Your task to perform on an android device: Is it going to rain tomorrow? Image 0: 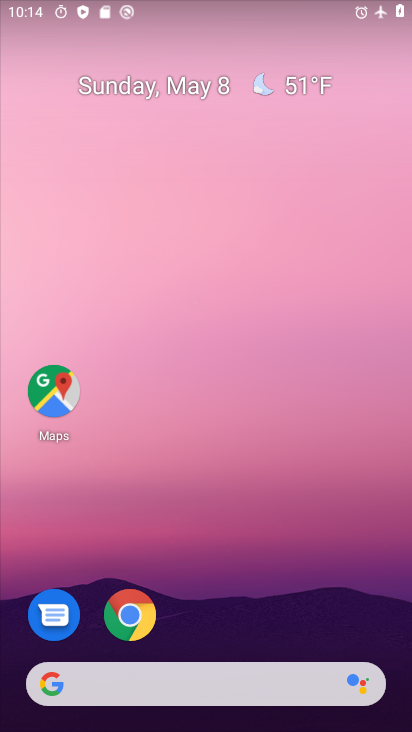
Step 0: drag from (223, 616) to (225, 175)
Your task to perform on an android device: Is it going to rain tomorrow? Image 1: 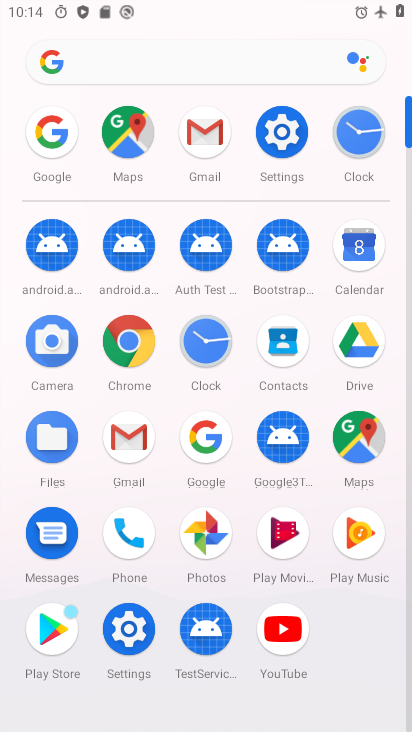
Step 1: click (211, 438)
Your task to perform on an android device: Is it going to rain tomorrow? Image 2: 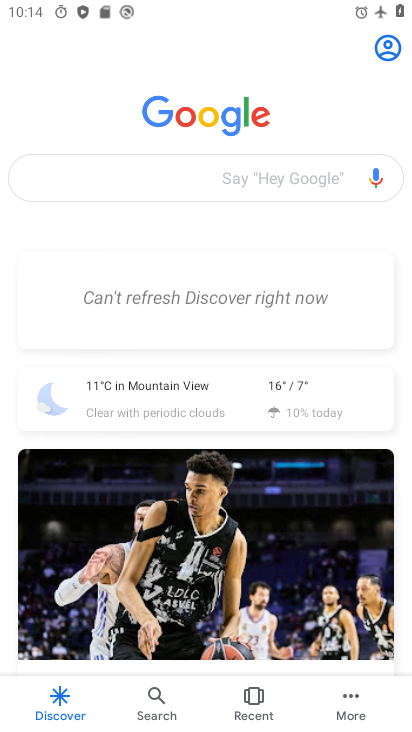
Step 2: click (193, 395)
Your task to perform on an android device: Is it going to rain tomorrow? Image 3: 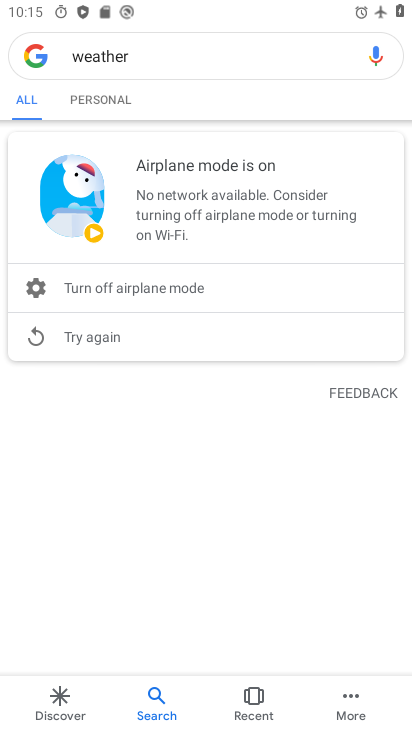
Step 3: task complete